Your task to perform on an android device: When is my next appointment? Image 0: 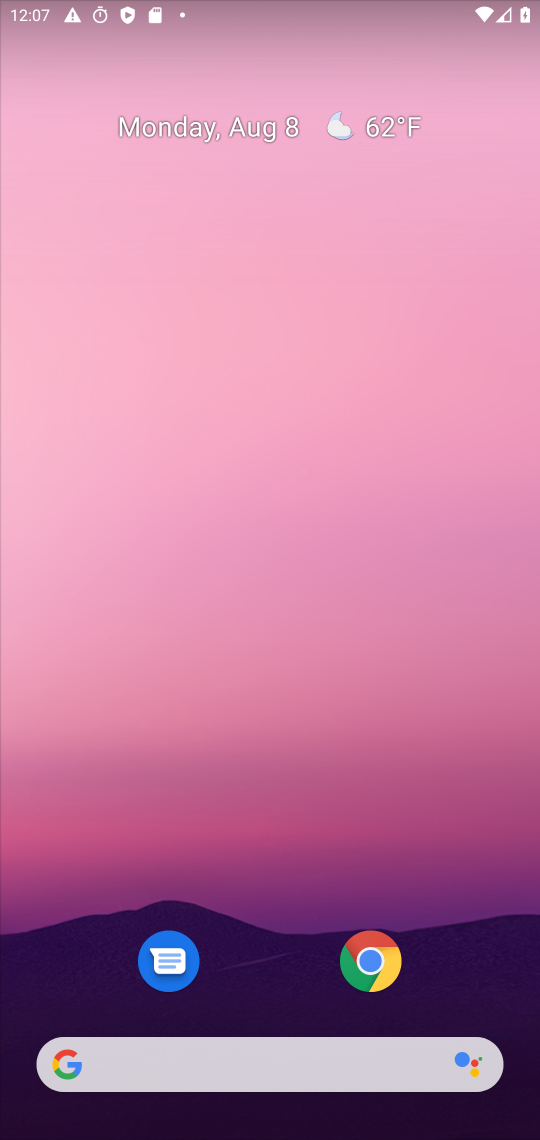
Step 0: drag from (252, 1052) to (539, 34)
Your task to perform on an android device: When is my next appointment? Image 1: 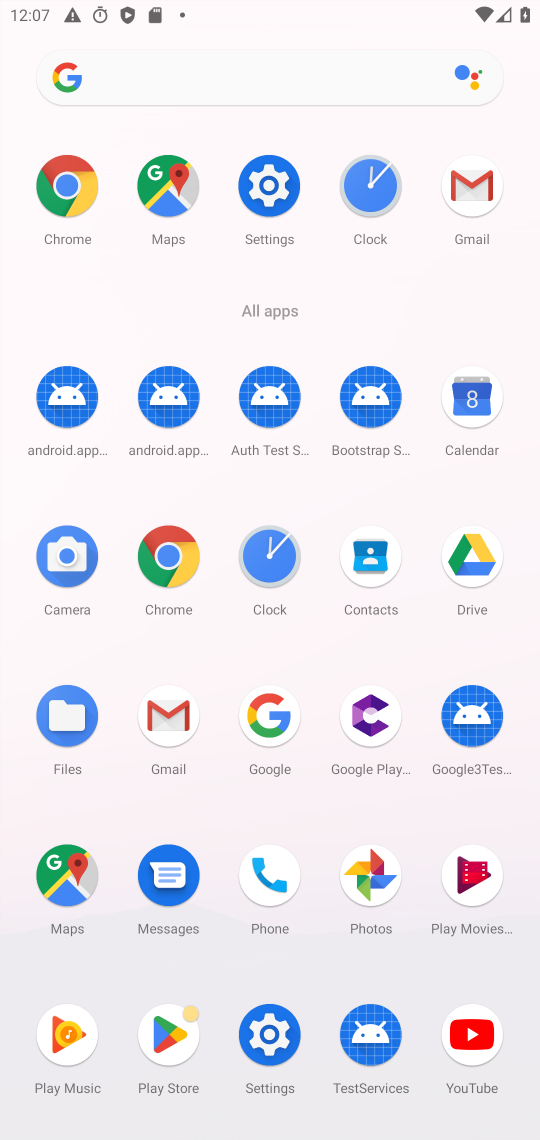
Step 1: click (467, 405)
Your task to perform on an android device: When is my next appointment? Image 2: 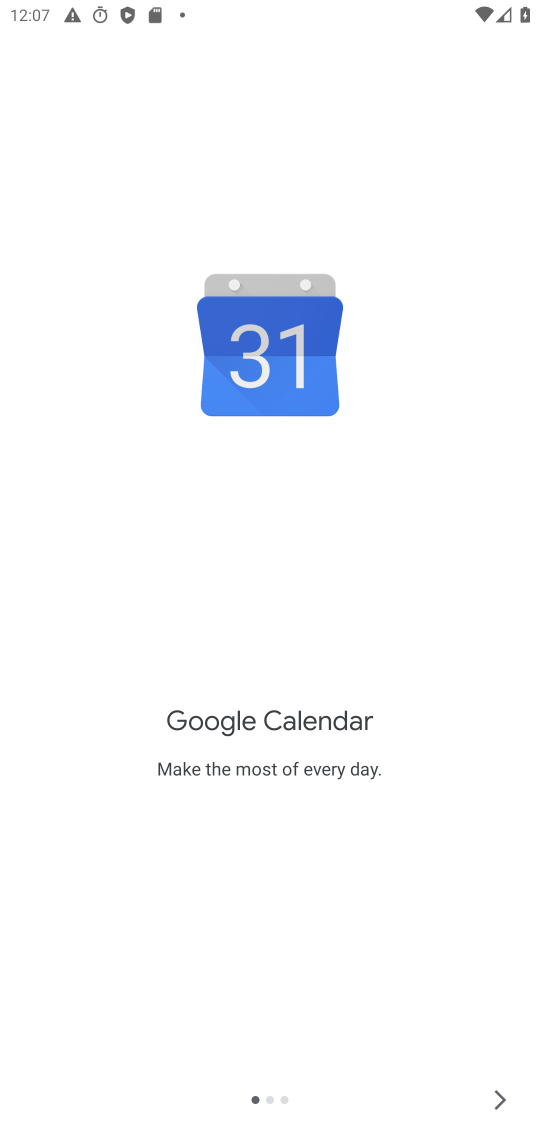
Step 2: click (498, 1090)
Your task to perform on an android device: When is my next appointment? Image 3: 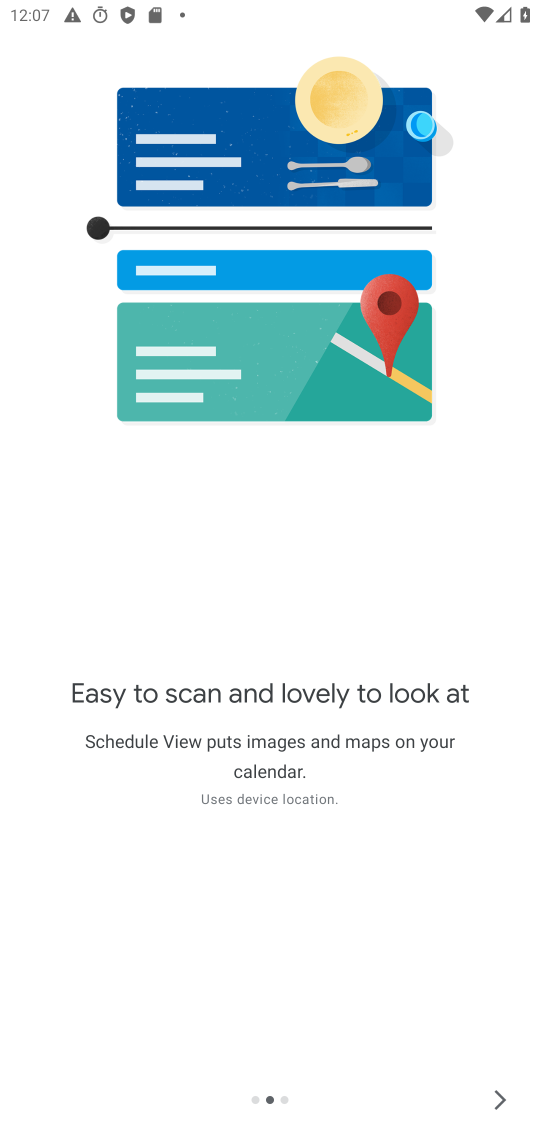
Step 3: click (506, 1100)
Your task to perform on an android device: When is my next appointment? Image 4: 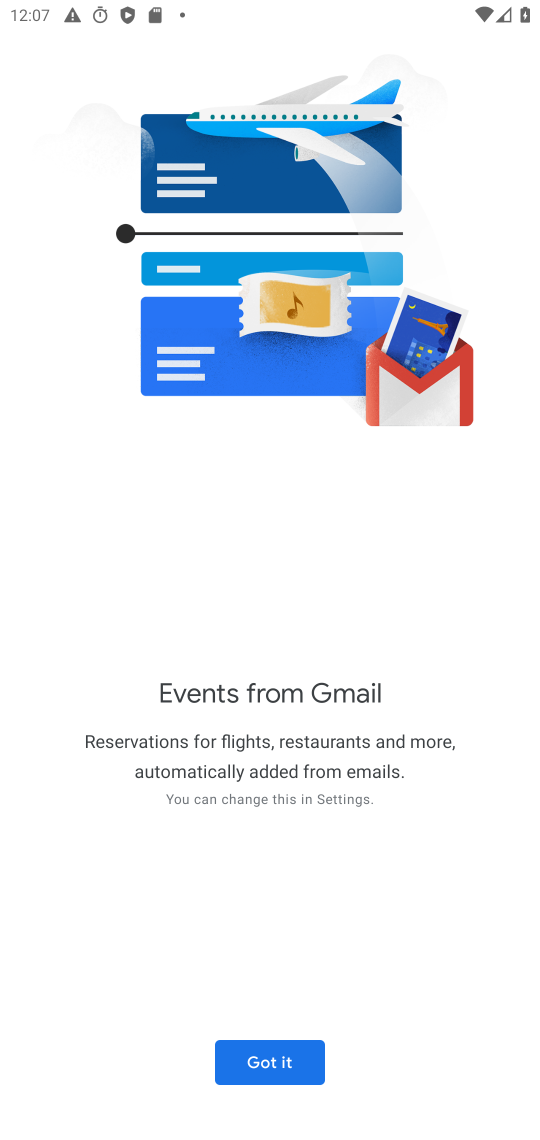
Step 4: click (295, 1066)
Your task to perform on an android device: When is my next appointment? Image 5: 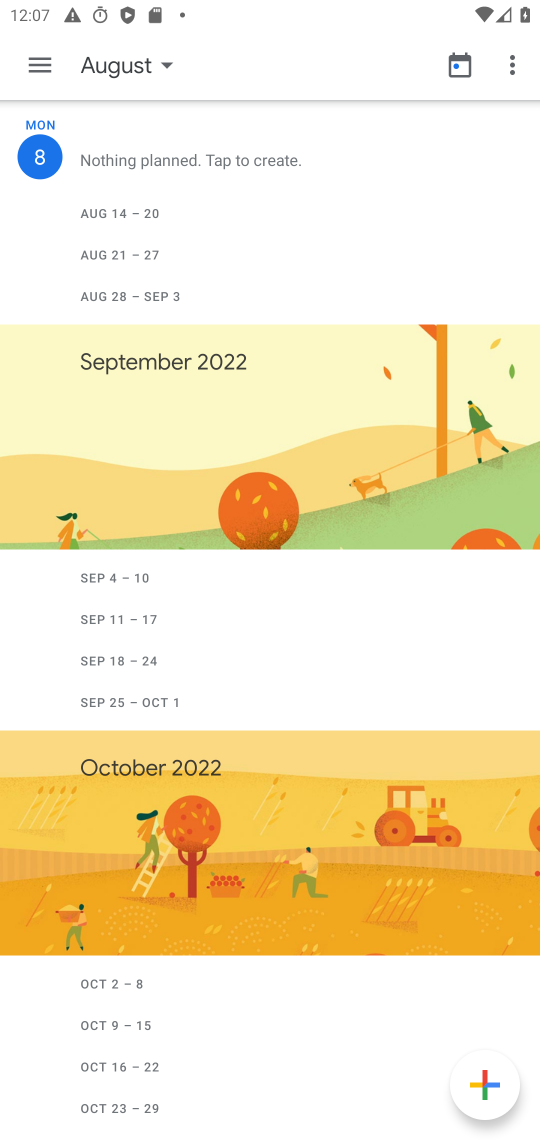
Step 5: click (158, 55)
Your task to perform on an android device: When is my next appointment? Image 6: 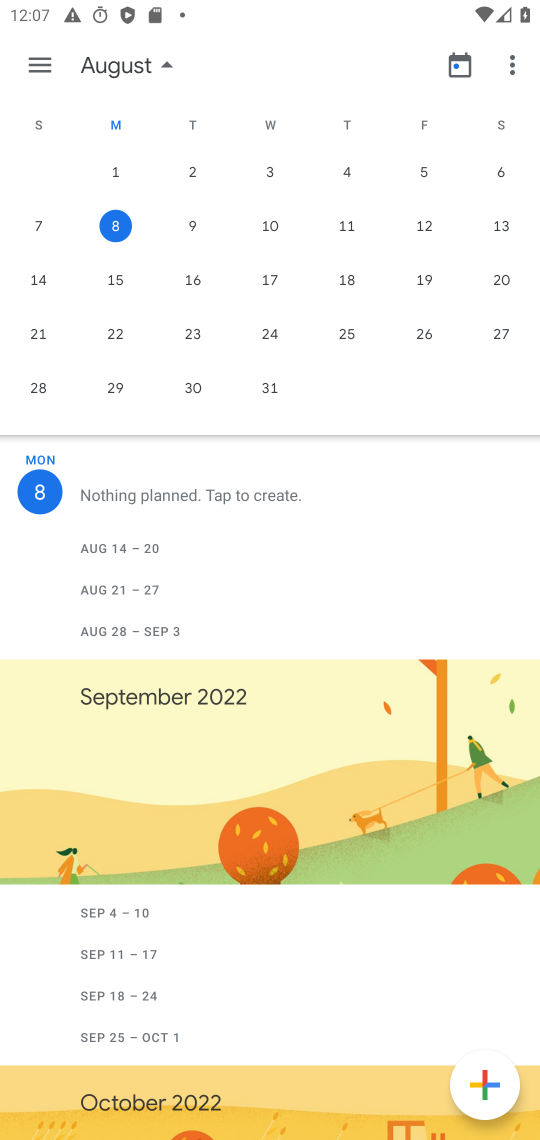
Step 6: task complete